Your task to perform on an android device: Open Chrome and go to settings Image 0: 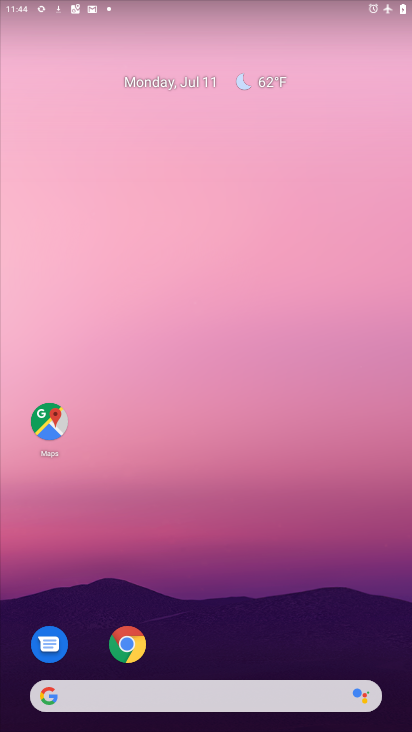
Step 0: drag from (193, 666) to (276, 8)
Your task to perform on an android device: Open Chrome and go to settings Image 1: 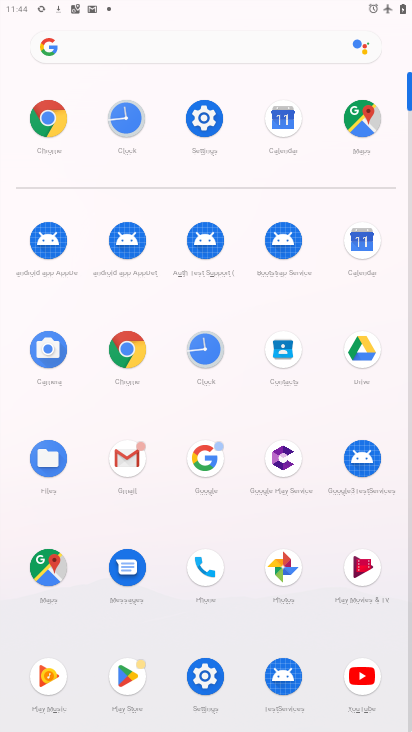
Step 1: click (134, 354)
Your task to perform on an android device: Open Chrome and go to settings Image 2: 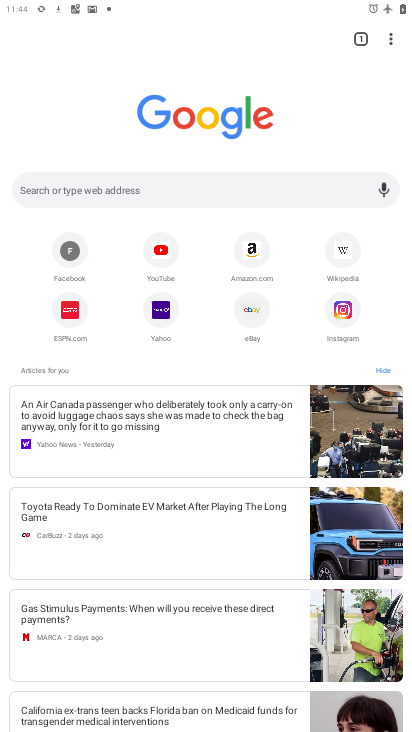
Step 2: click (392, 41)
Your task to perform on an android device: Open Chrome and go to settings Image 3: 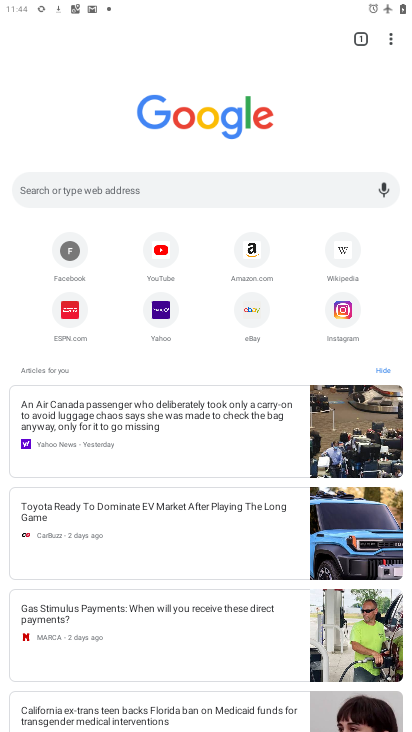
Step 3: task complete